Your task to perform on an android device: Open wifi settings Image 0: 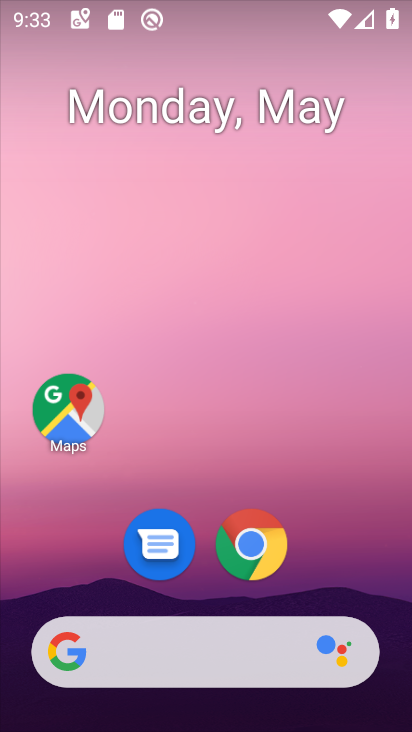
Step 0: click (350, 153)
Your task to perform on an android device: Open wifi settings Image 1: 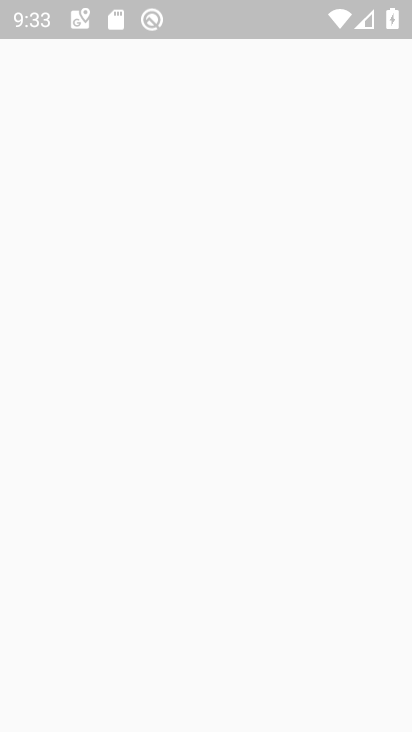
Step 1: press home button
Your task to perform on an android device: Open wifi settings Image 2: 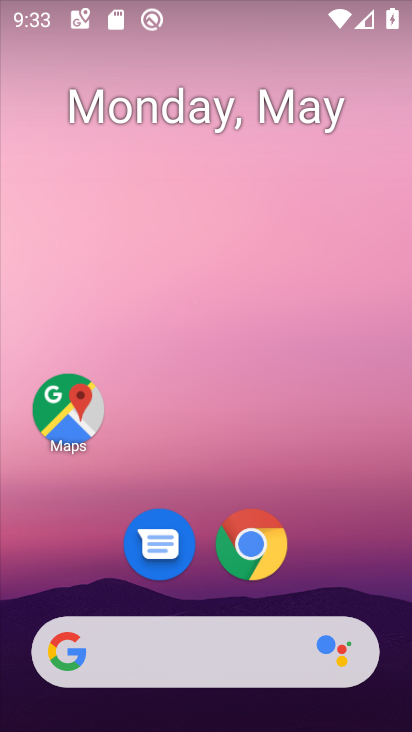
Step 2: drag from (368, 567) to (330, 190)
Your task to perform on an android device: Open wifi settings Image 3: 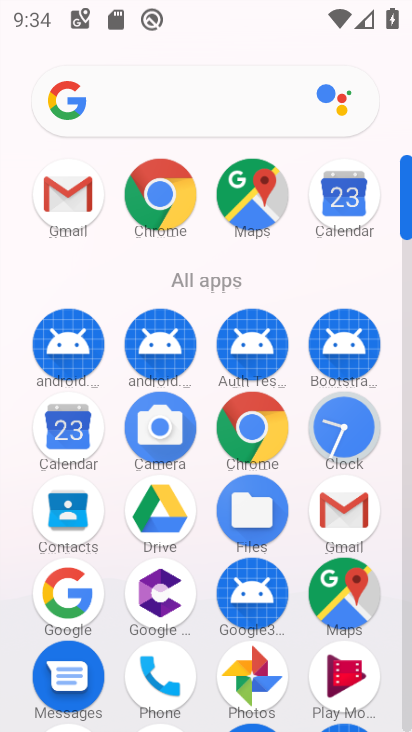
Step 3: drag from (245, 552) to (256, 232)
Your task to perform on an android device: Open wifi settings Image 4: 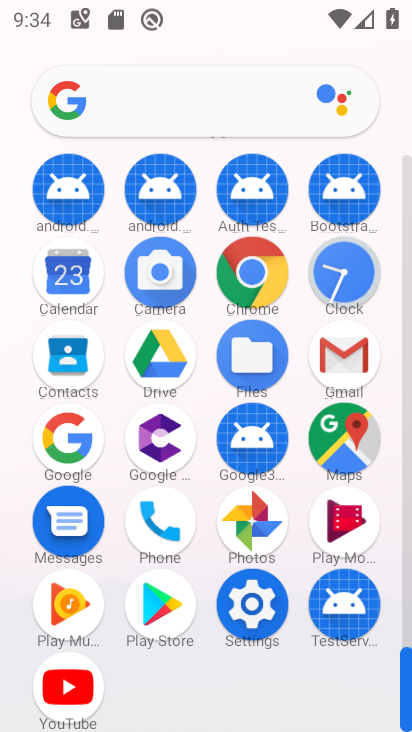
Step 4: click (251, 610)
Your task to perform on an android device: Open wifi settings Image 5: 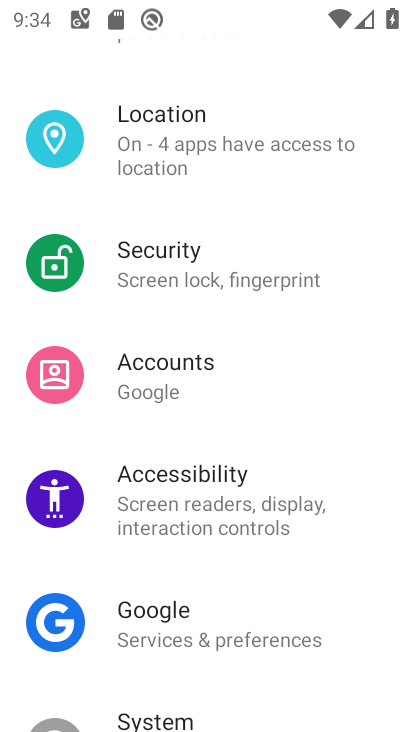
Step 5: drag from (263, 185) to (296, 605)
Your task to perform on an android device: Open wifi settings Image 6: 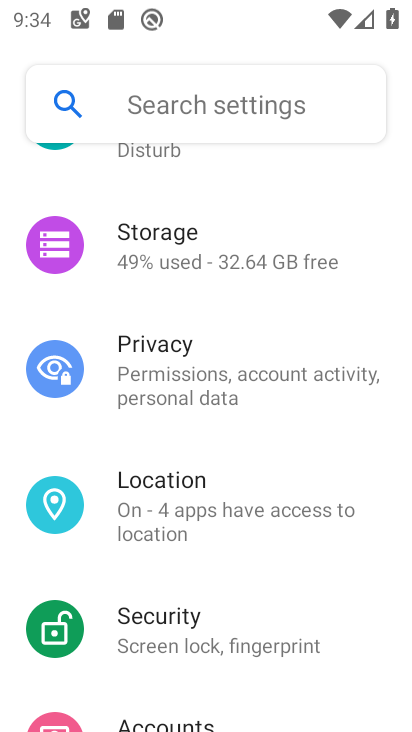
Step 6: drag from (268, 215) to (270, 567)
Your task to perform on an android device: Open wifi settings Image 7: 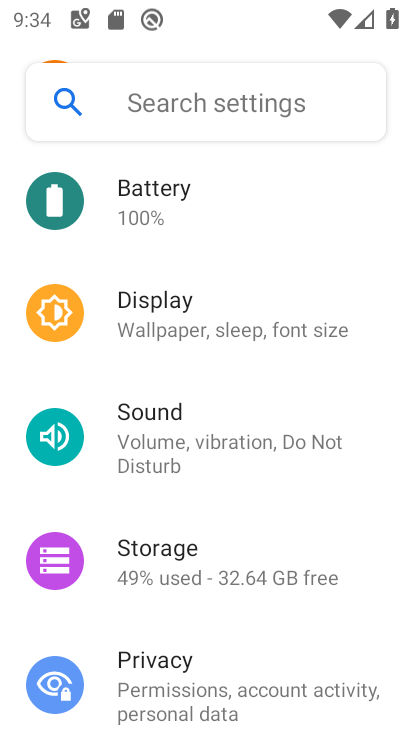
Step 7: drag from (263, 238) to (305, 571)
Your task to perform on an android device: Open wifi settings Image 8: 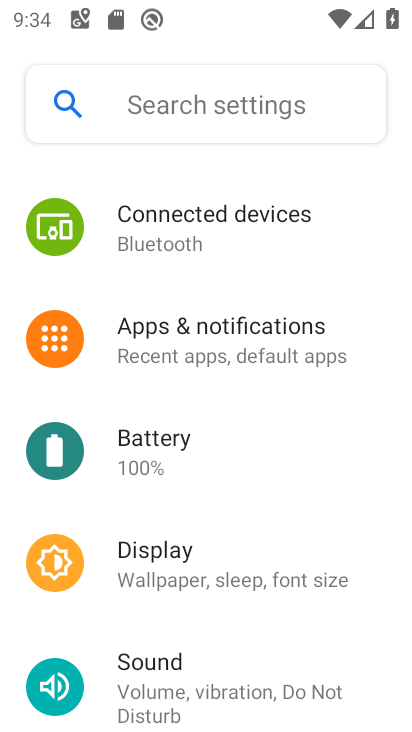
Step 8: drag from (230, 261) to (250, 575)
Your task to perform on an android device: Open wifi settings Image 9: 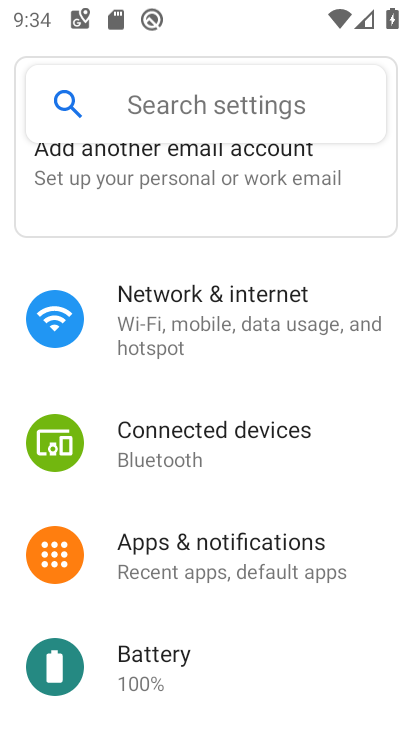
Step 9: click (253, 306)
Your task to perform on an android device: Open wifi settings Image 10: 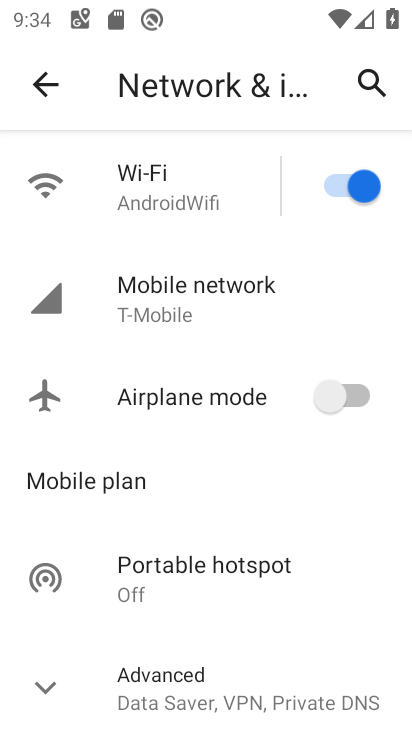
Step 10: click (234, 209)
Your task to perform on an android device: Open wifi settings Image 11: 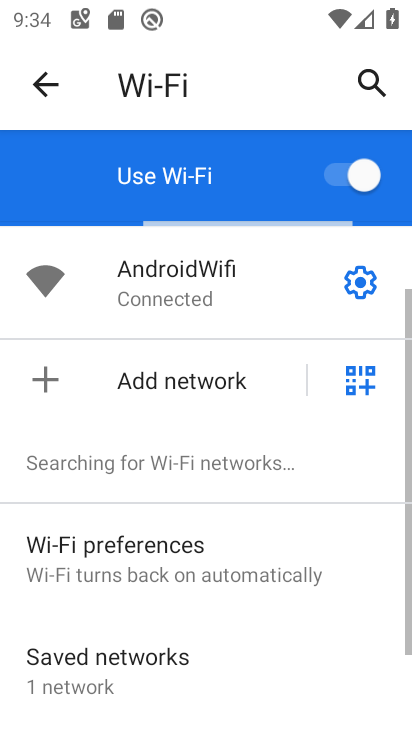
Step 11: click (347, 291)
Your task to perform on an android device: Open wifi settings Image 12: 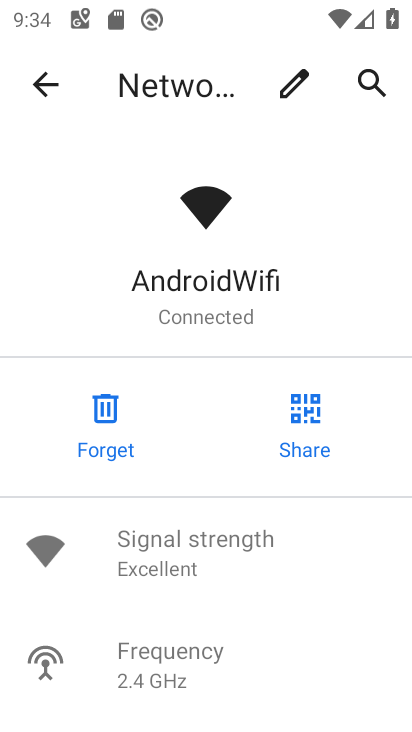
Step 12: task complete